Your task to perform on an android device: turn off data saver in the chrome app Image 0: 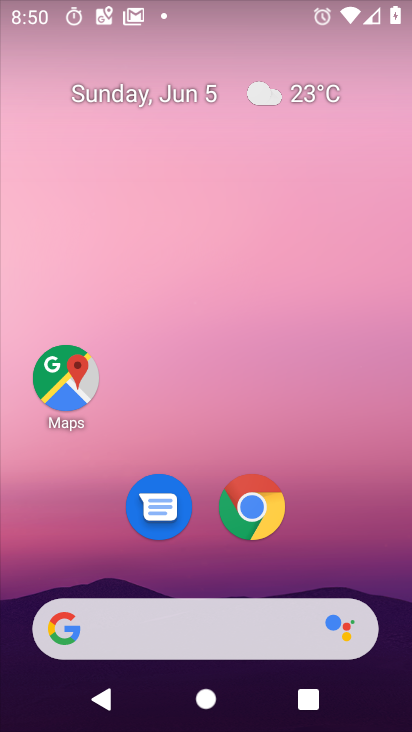
Step 0: drag from (247, 654) to (206, 102)
Your task to perform on an android device: turn off data saver in the chrome app Image 1: 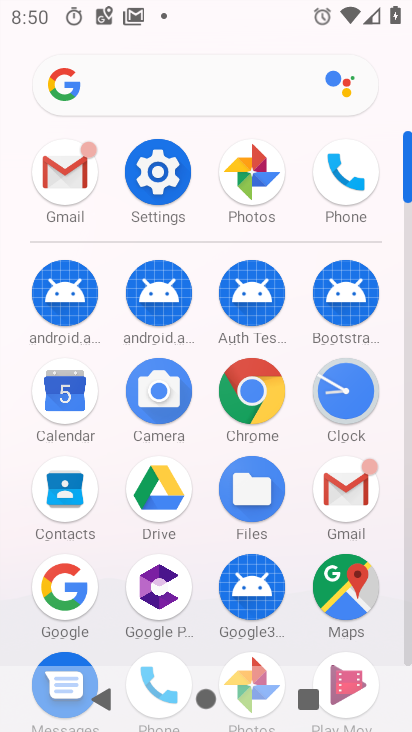
Step 1: click (269, 405)
Your task to perform on an android device: turn off data saver in the chrome app Image 2: 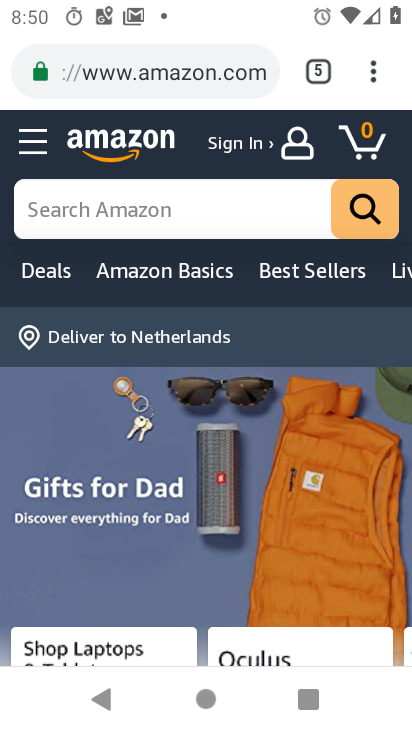
Step 2: click (368, 89)
Your task to perform on an android device: turn off data saver in the chrome app Image 3: 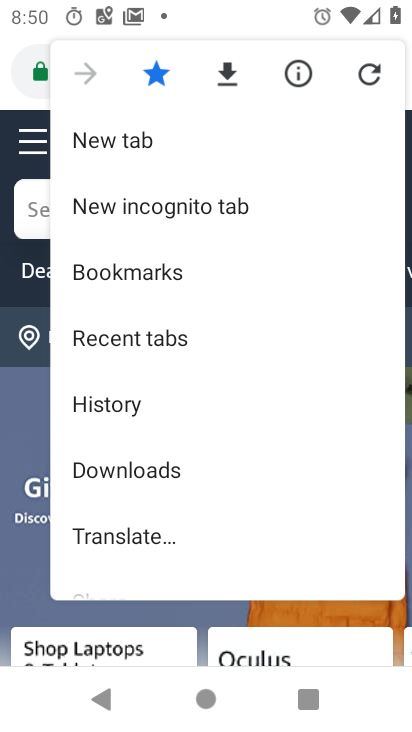
Step 3: drag from (226, 388) to (218, 227)
Your task to perform on an android device: turn off data saver in the chrome app Image 4: 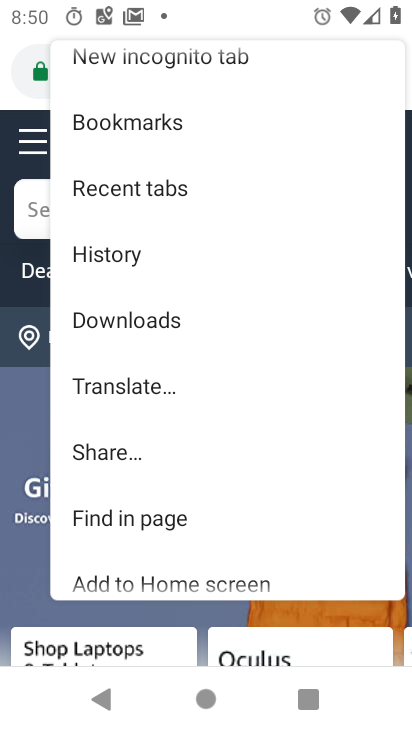
Step 4: drag from (179, 545) to (149, 315)
Your task to perform on an android device: turn off data saver in the chrome app Image 5: 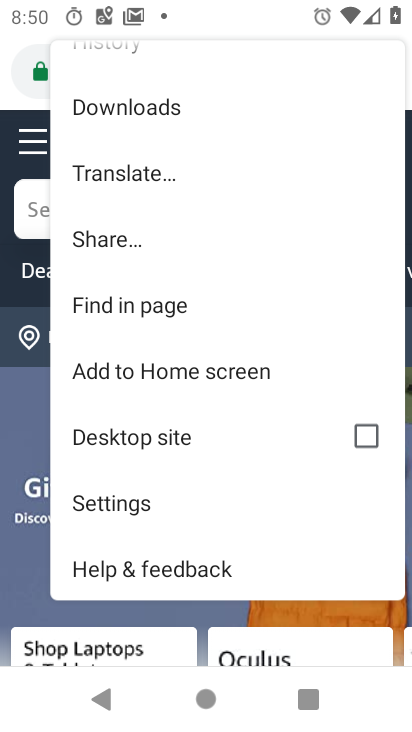
Step 5: click (158, 511)
Your task to perform on an android device: turn off data saver in the chrome app Image 6: 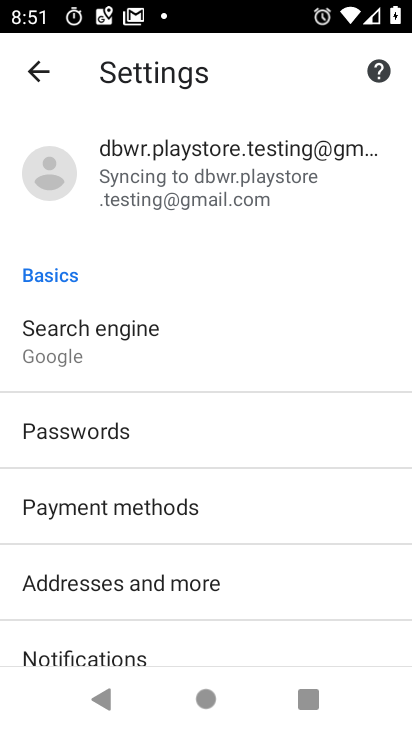
Step 6: drag from (277, 585) to (231, 302)
Your task to perform on an android device: turn off data saver in the chrome app Image 7: 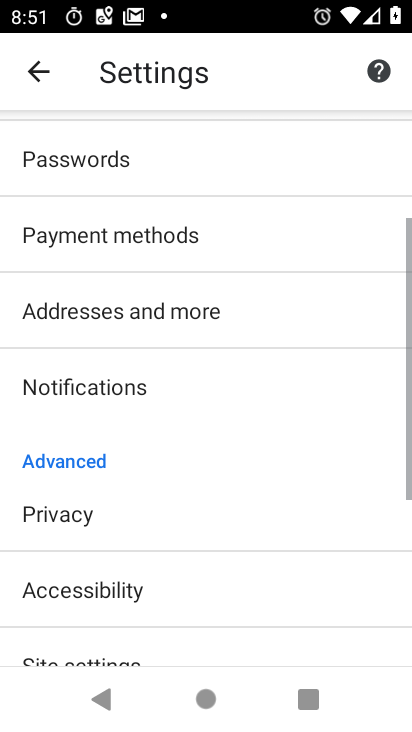
Step 7: drag from (155, 581) to (122, 345)
Your task to perform on an android device: turn off data saver in the chrome app Image 8: 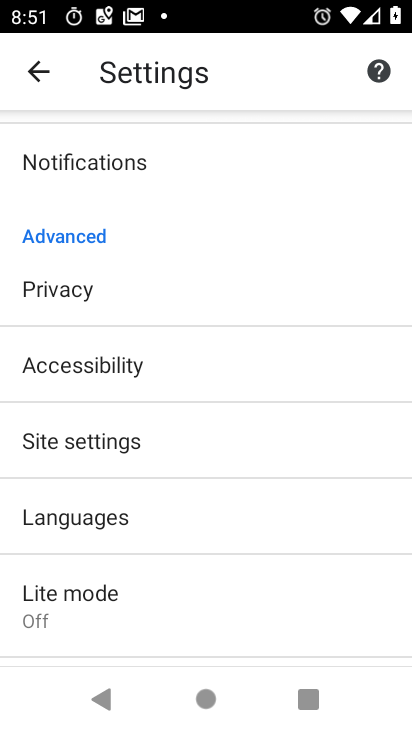
Step 8: drag from (179, 549) to (175, 419)
Your task to perform on an android device: turn off data saver in the chrome app Image 9: 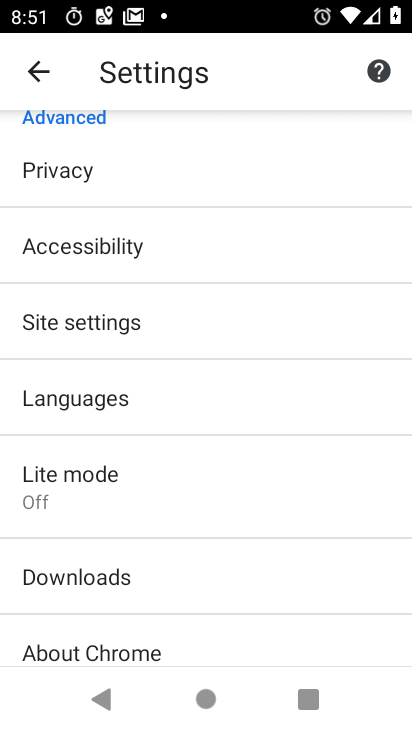
Step 9: click (123, 479)
Your task to perform on an android device: turn off data saver in the chrome app Image 10: 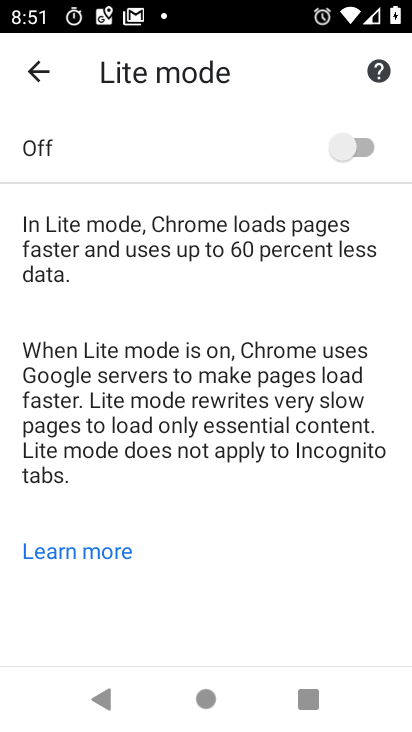
Step 10: click (354, 136)
Your task to perform on an android device: turn off data saver in the chrome app Image 11: 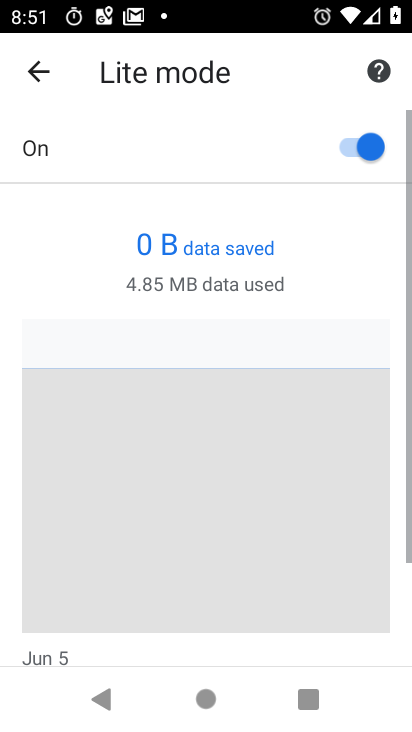
Step 11: click (346, 146)
Your task to perform on an android device: turn off data saver in the chrome app Image 12: 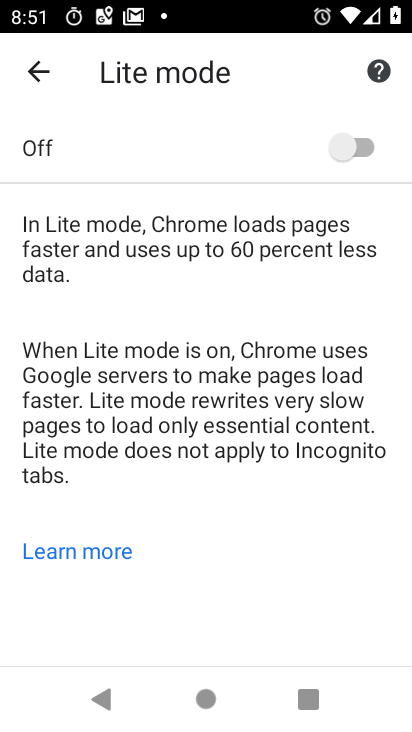
Step 12: task complete